Your task to perform on an android device: turn on bluetooth scan Image 0: 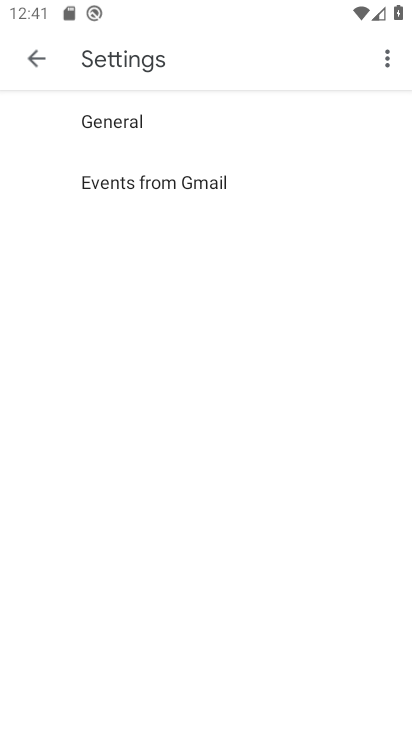
Step 0: press home button
Your task to perform on an android device: turn on bluetooth scan Image 1: 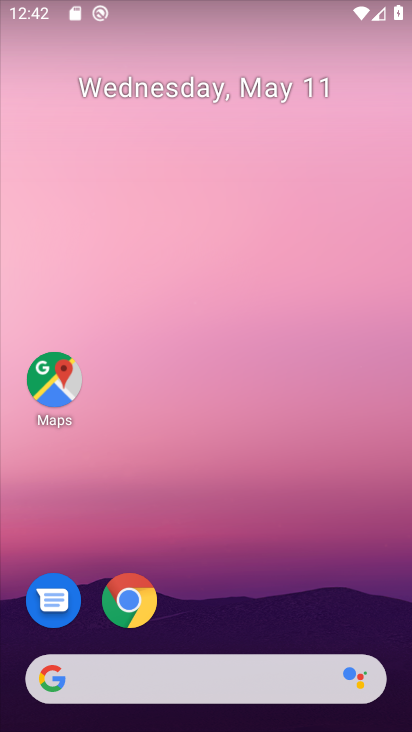
Step 1: drag from (201, 407) to (216, 174)
Your task to perform on an android device: turn on bluetooth scan Image 2: 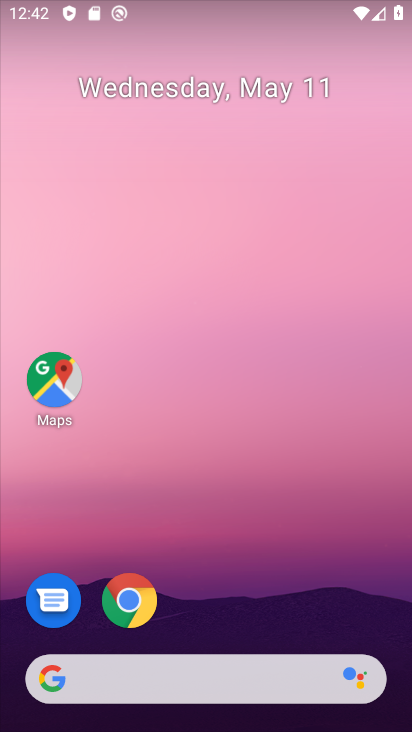
Step 2: drag from (225, 538) to (234, 253)
Your task to perform on an android device: turn on bluetooth scan Image 3: 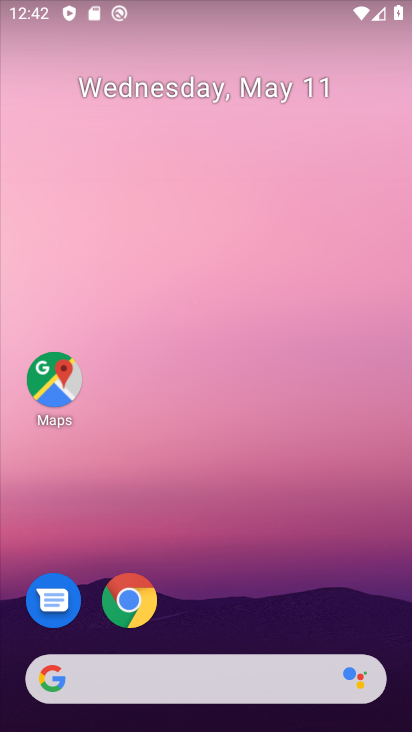
Step 3: drag from (236, 593) to (306, 138)
Your task to perform on an android device: turn on bluetooth scan Image 4: 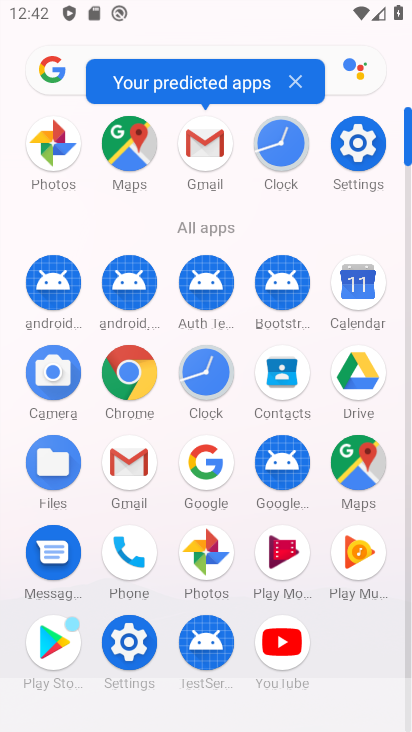
Step 4: click (352, 144)
Your task to perform on an android device: turn on bluetooth scan Image 5: 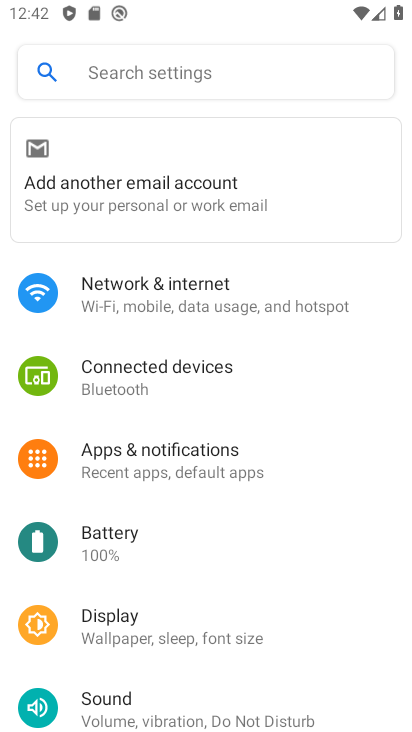
Step 5: click (168, 62)
Your task to perform on an android device: turn on bluetooth scan Image 6: 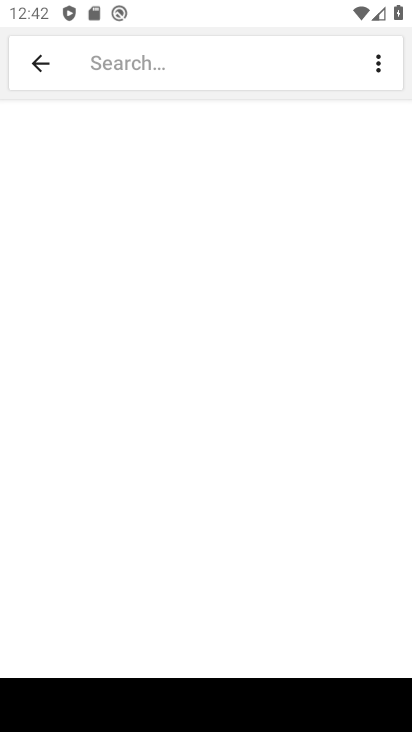
Step 6: click (173, 52)
Your task to perform on an android device: turn on bluetooth scan Image 7: 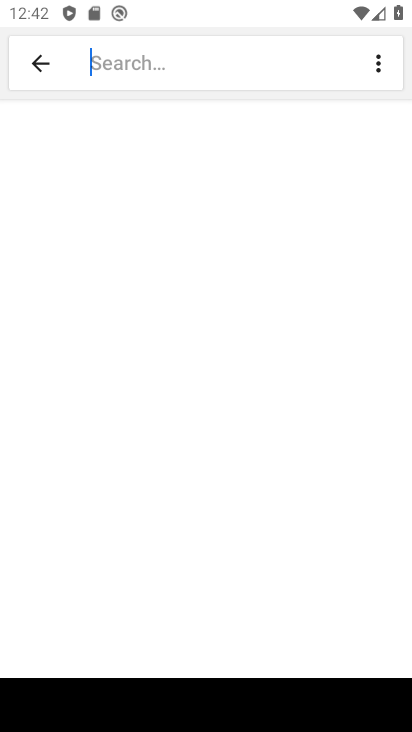
Step 7: type "bluetooth scan"
Your task to perform on an android device: turn on bluetooth scan Image 8: 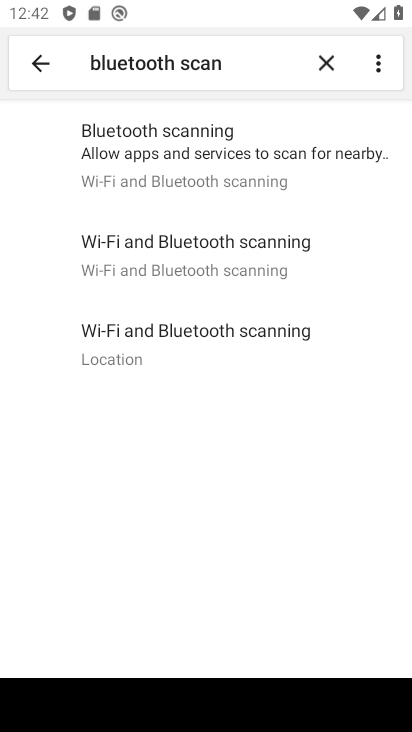
Step 8: click (146, 159)
Your task to perform on an android device: turn on bluetooth scan Image 9: 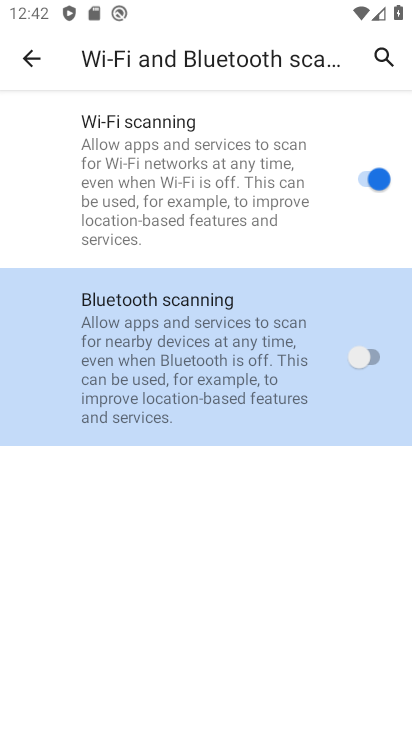
Step 9: click (363, 367)
Your task to perform on an android device: turn on bluetooth scan Image 10: 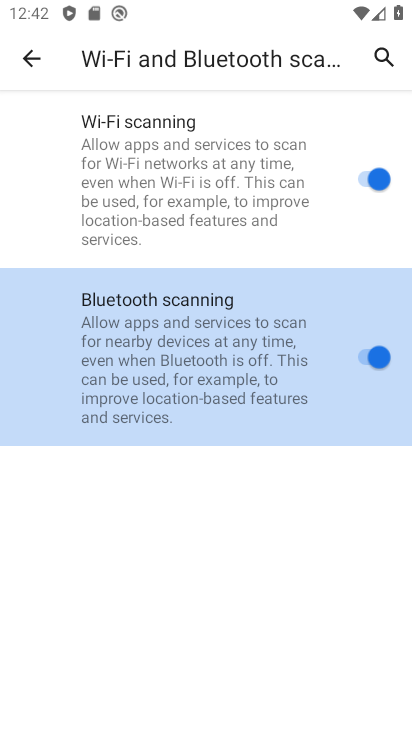
Step 10: task complete